Your task to perform on an android device: toggle sleep mode Image 0: 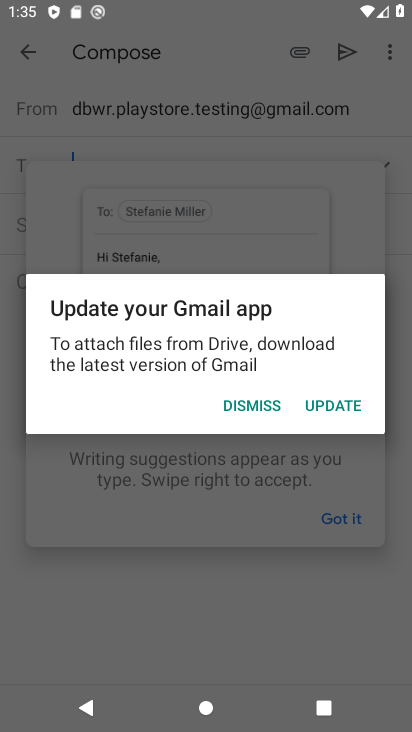
Step 0: press home button
Your task to perform on an android device: toggle sleep mode Image 1: 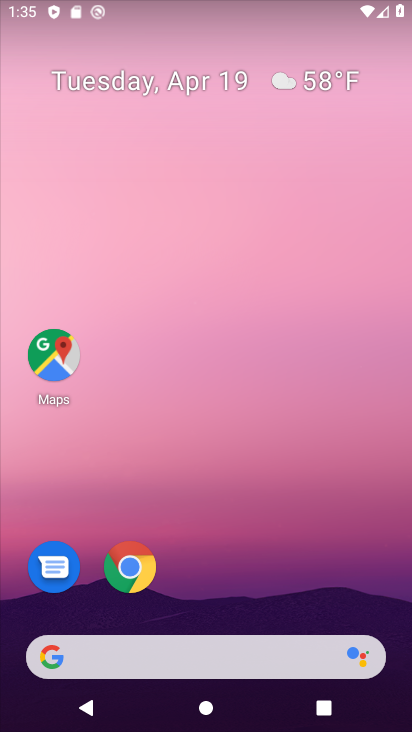
Step 1: drag from (377, 602) to (339, 96)
Your task to perform on an android device: toggle sleep mode Image 2: 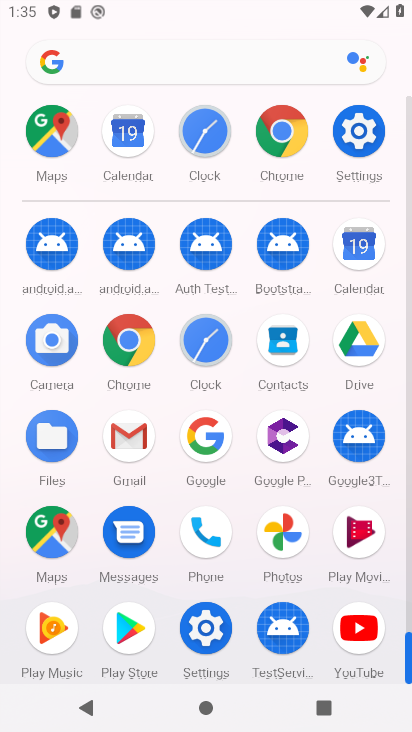
Step 2: click (204, 633)
Your task to perform on an android device: toggle sleep mode Image 3: 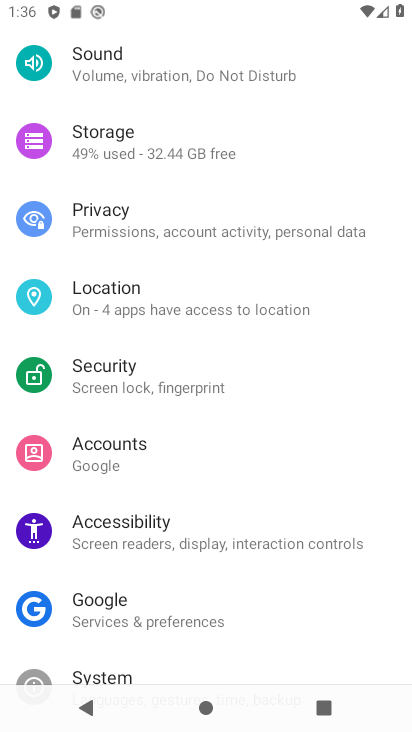
Step 3: drag from (214, 386) to (188, 672)
Your task to perform on an android device: toggle sleep mode Image 4: 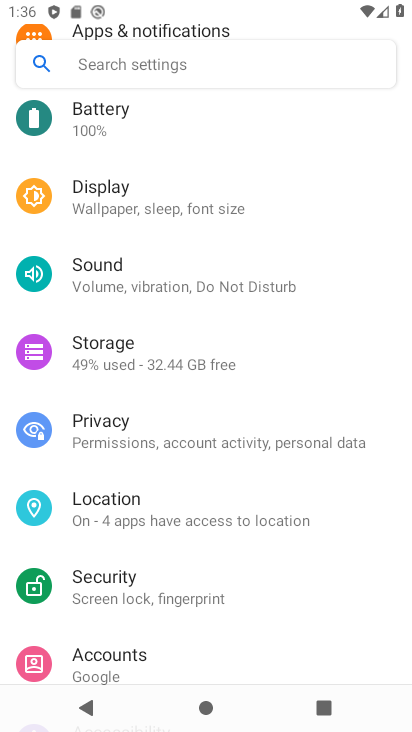
Step 4: click (109, 195)
Your task to perform on an android device: toggle sleep mode Image 5: 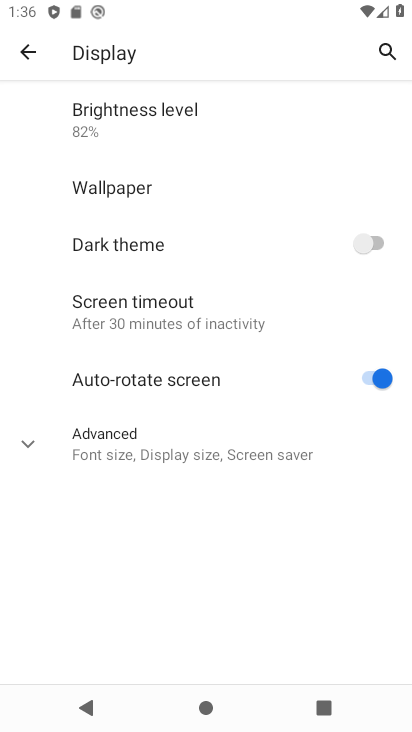
Step 5: click (27, 446)
Your task to perform on an android device: toggle sleep mode Image 6: 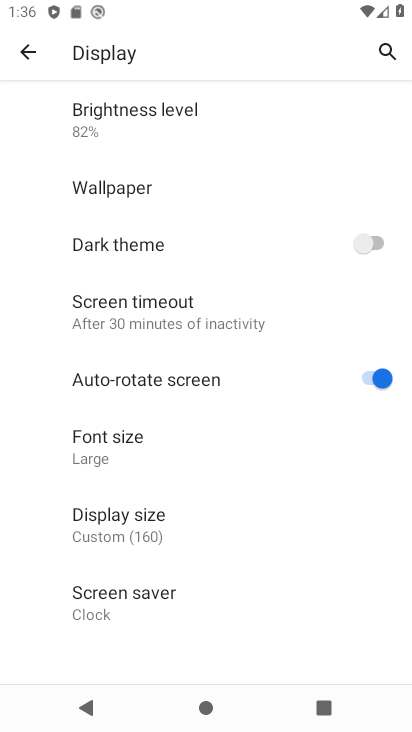
Step 6: task complete